Your task to perform on an android device: Open Google Image 0: 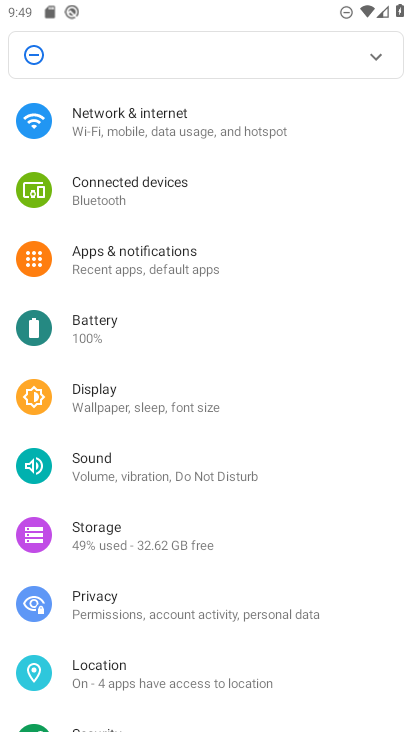
Step 0: press home button
Your task to perform on an android device: Open Google Image 1: 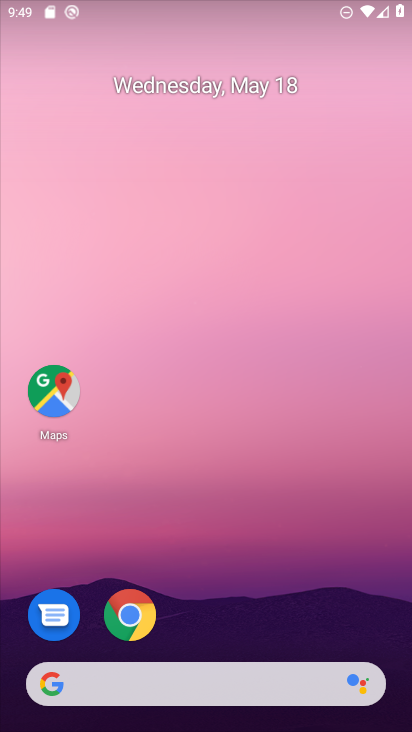
Step 1: drag from (296, 565) to (260, 80)
Your task to perform on an android device: Open Google Image 2: 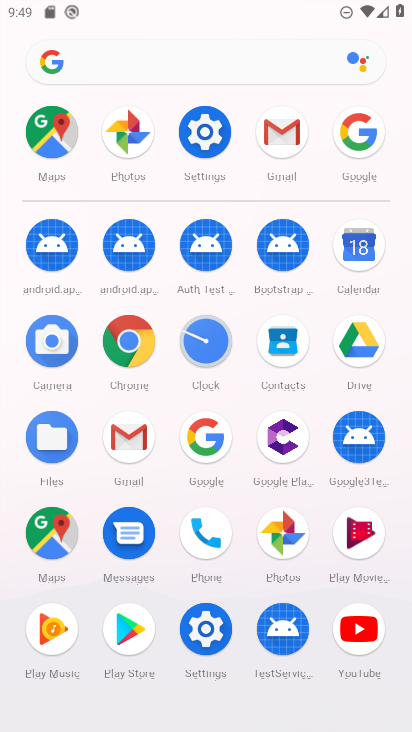
Step 2: click (207, 434)
Your task to perform on an android device: Open Google Image 3: 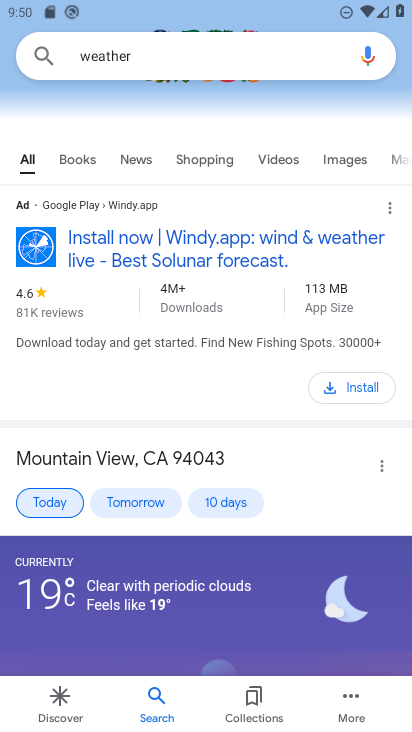
Step 3: task complete